Your task to perform on an android device: Go to notification settings Image 0: 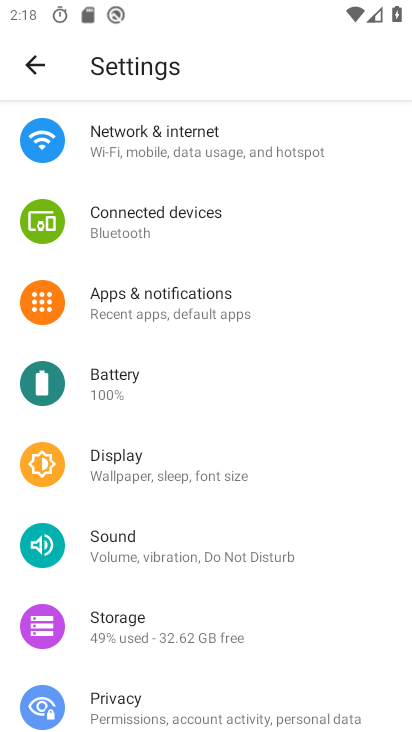
Step 0: press home button
Your task to perform on an android device: Go to notification settings Image 1: 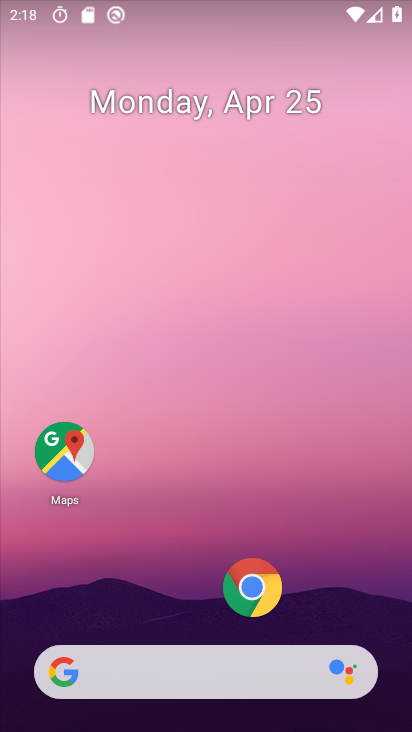
Step 1: drag from (187, 609) to (209, 51)
Your task to perform on an android device: Go to notification settings Image 2: 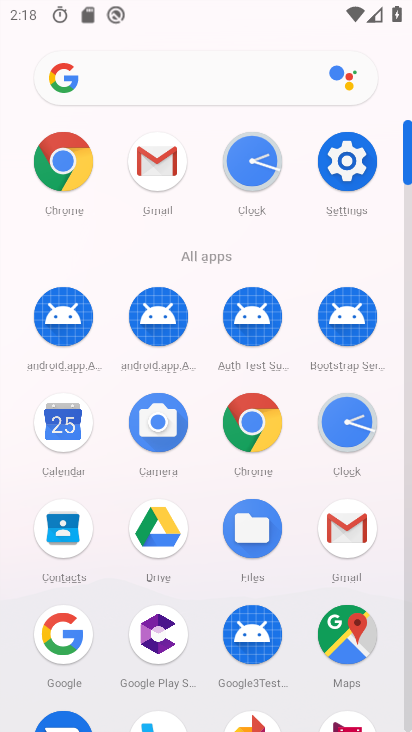
Step 2: click (344, 152)
Your task to perform on an android device: Go to notification settings Image 3: 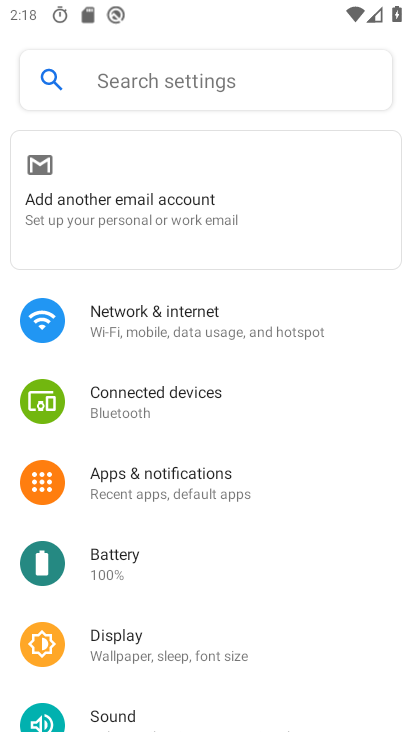
Step 3: click (244, 469)
Your task to perform on an android device: Go to notification settings Image 4: 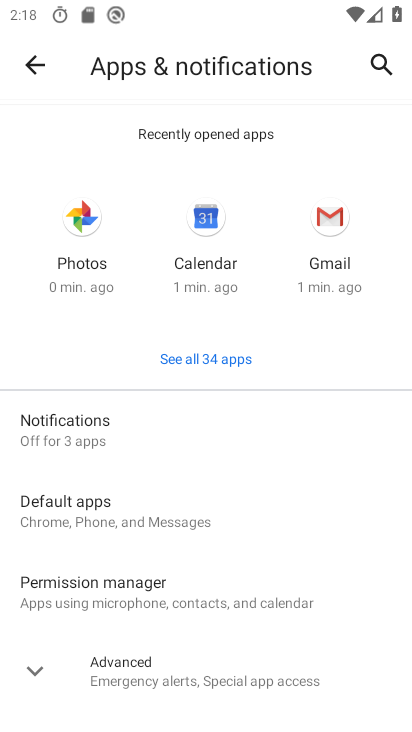
Step 4: click (116, 426)
Your task to perform on an android device: Go to notification settings Image 5: 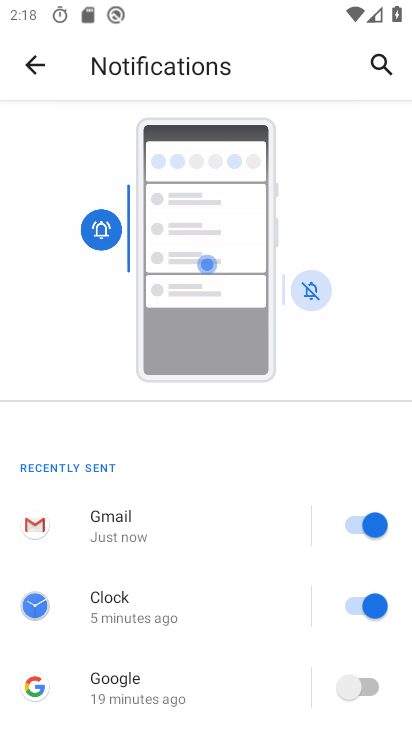
Step 5: drag from (200, 620) to (211, 212)
Your task to perform on an android device: Go to notification settings Image 6: 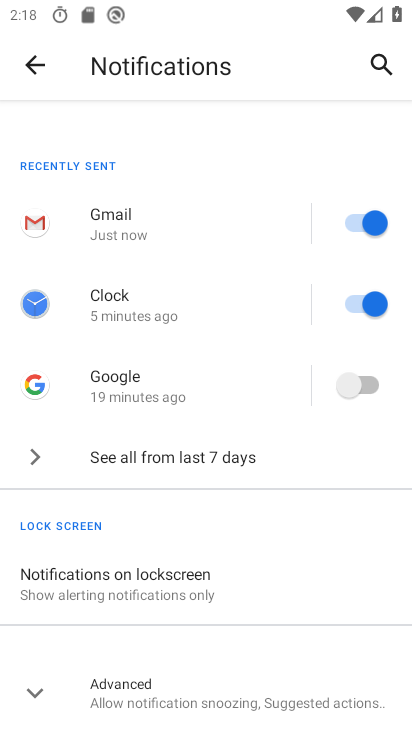
Step 6: click (364, 219)
Your task to perform on an android device: Go to notification settings Image 7: 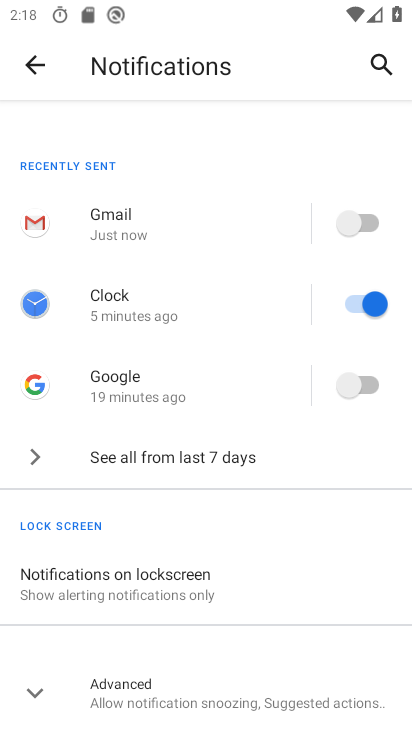
Step 7: click (357, 302)
Your task to perform on an android device: Go to notification settings Image 8: 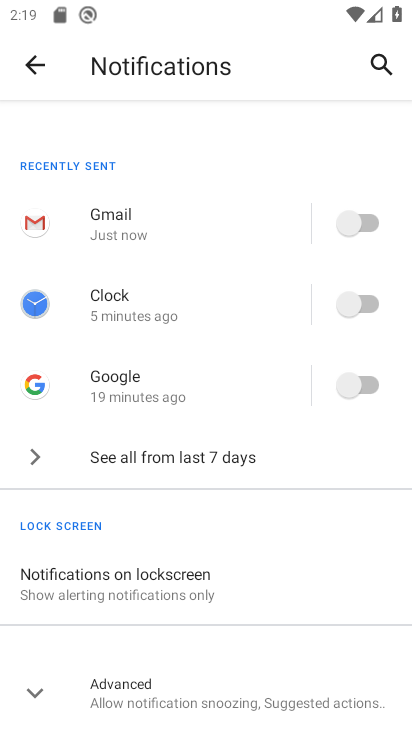
Step 8: click (217, 581)
Your task to perform on an android device: Go to notification settings Image 9: 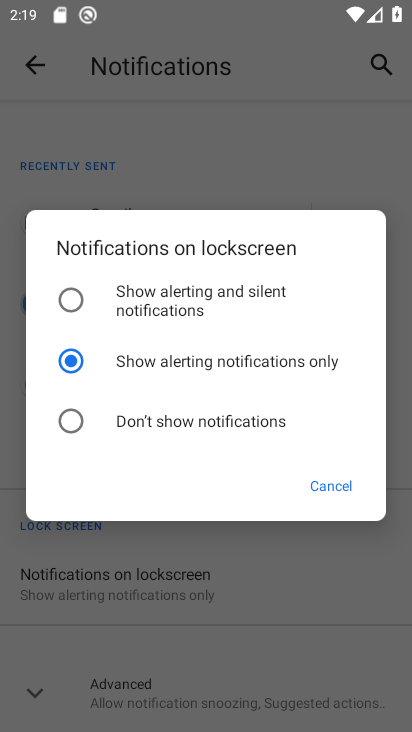
Step 9: click (75, 286)
Your task to perform on an android device: Go to notification settings Image 10: 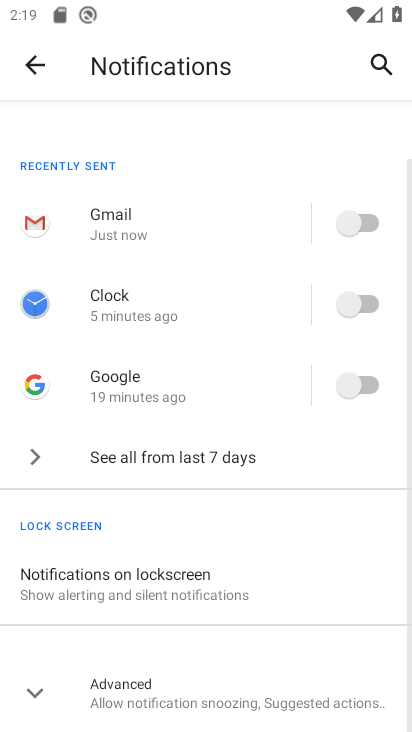
Step 10: task complete